Your task to perform on an android device: open app "PlayWell" Image 0: 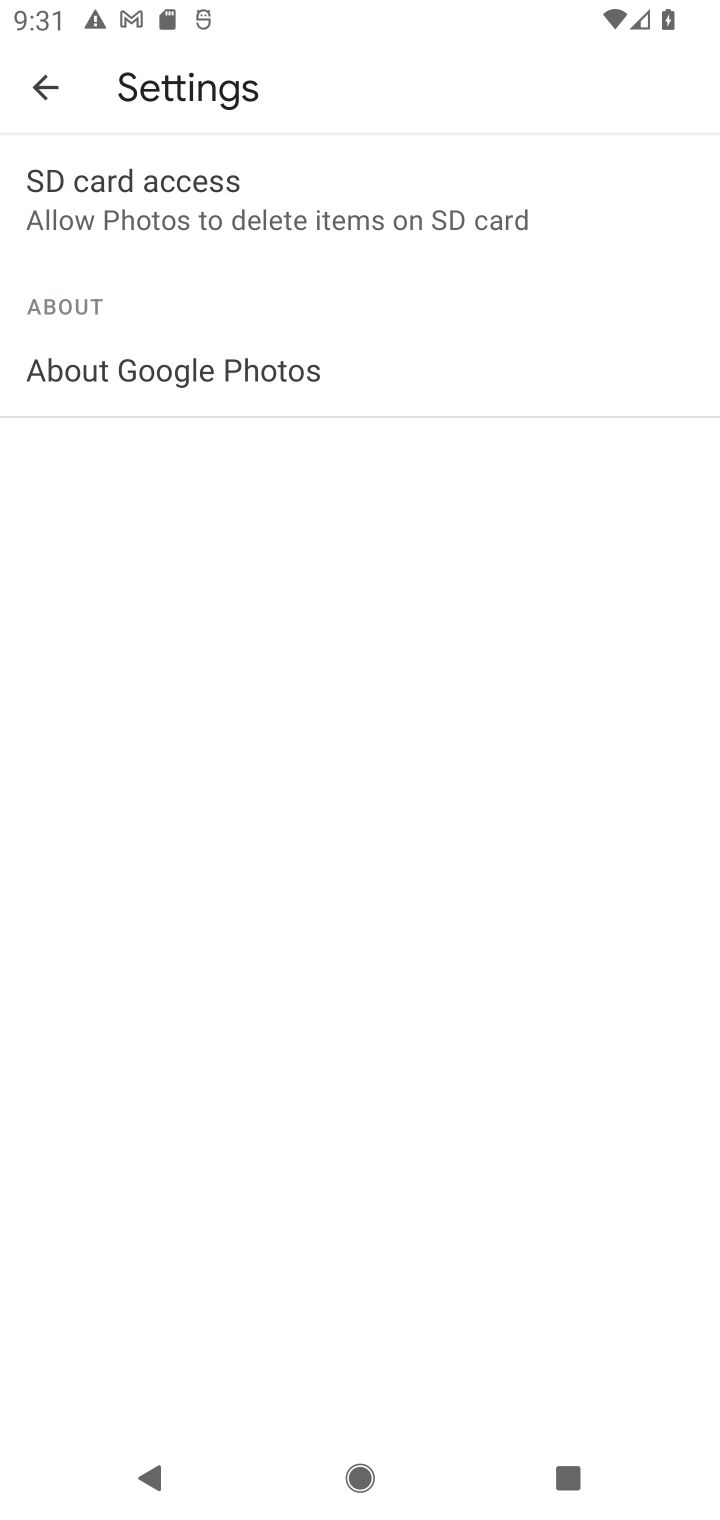
Step 0: press home button
Your task to perform on an android device: open app "PlayWell" Image 1: 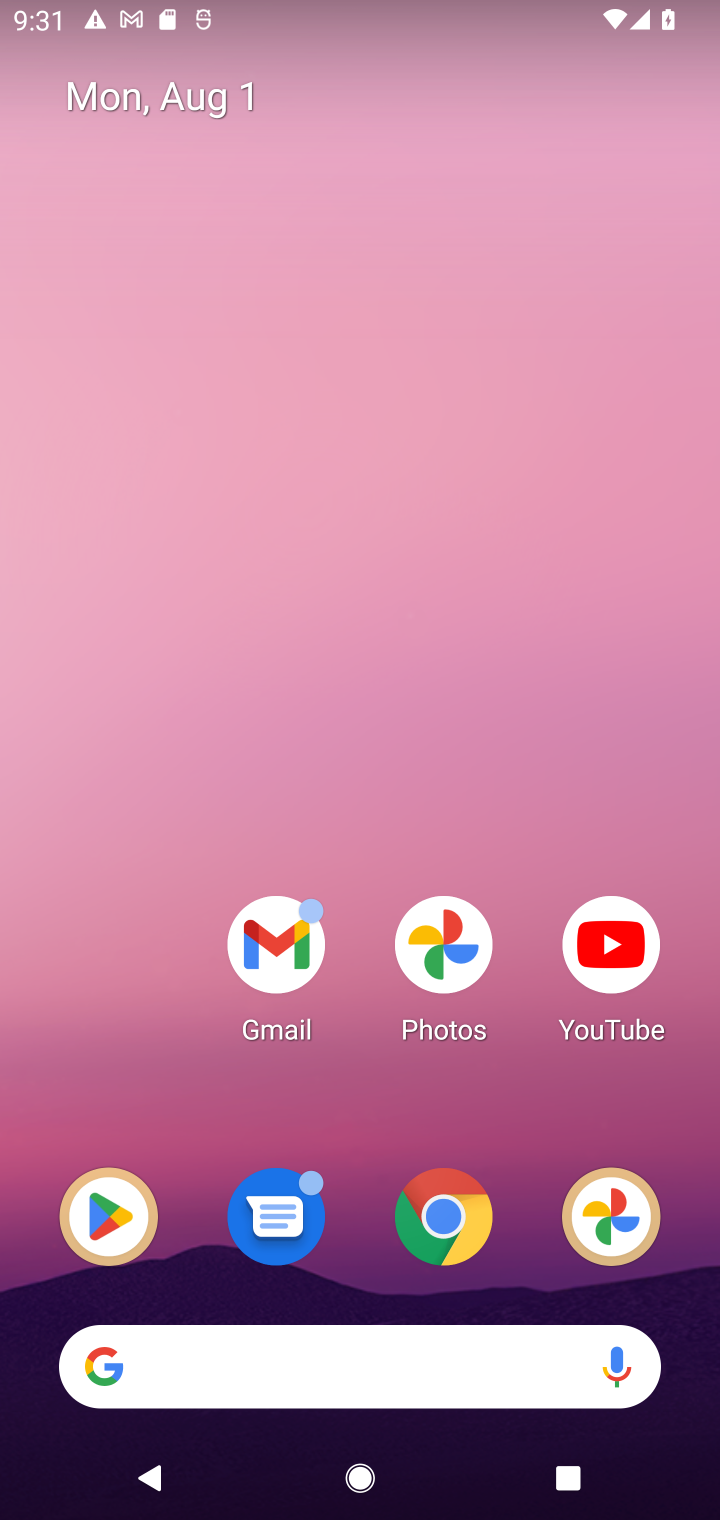
Step 1: click (74, 1238)
Your task to perform on an android device: open app "PlayWell" Image 2: 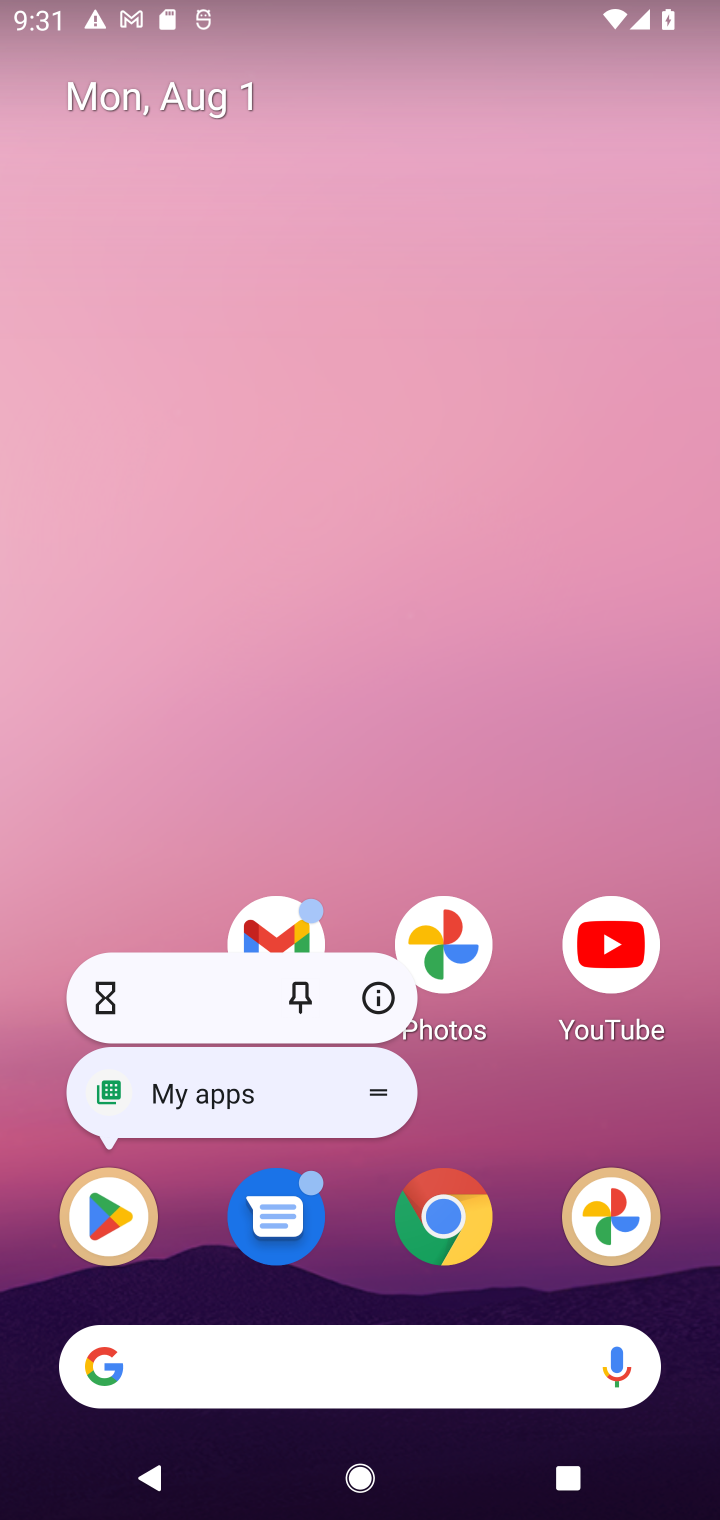
Step 2: click (91, 1228)
Your task to perform on an android device: open app "PlayWell" Image 3: 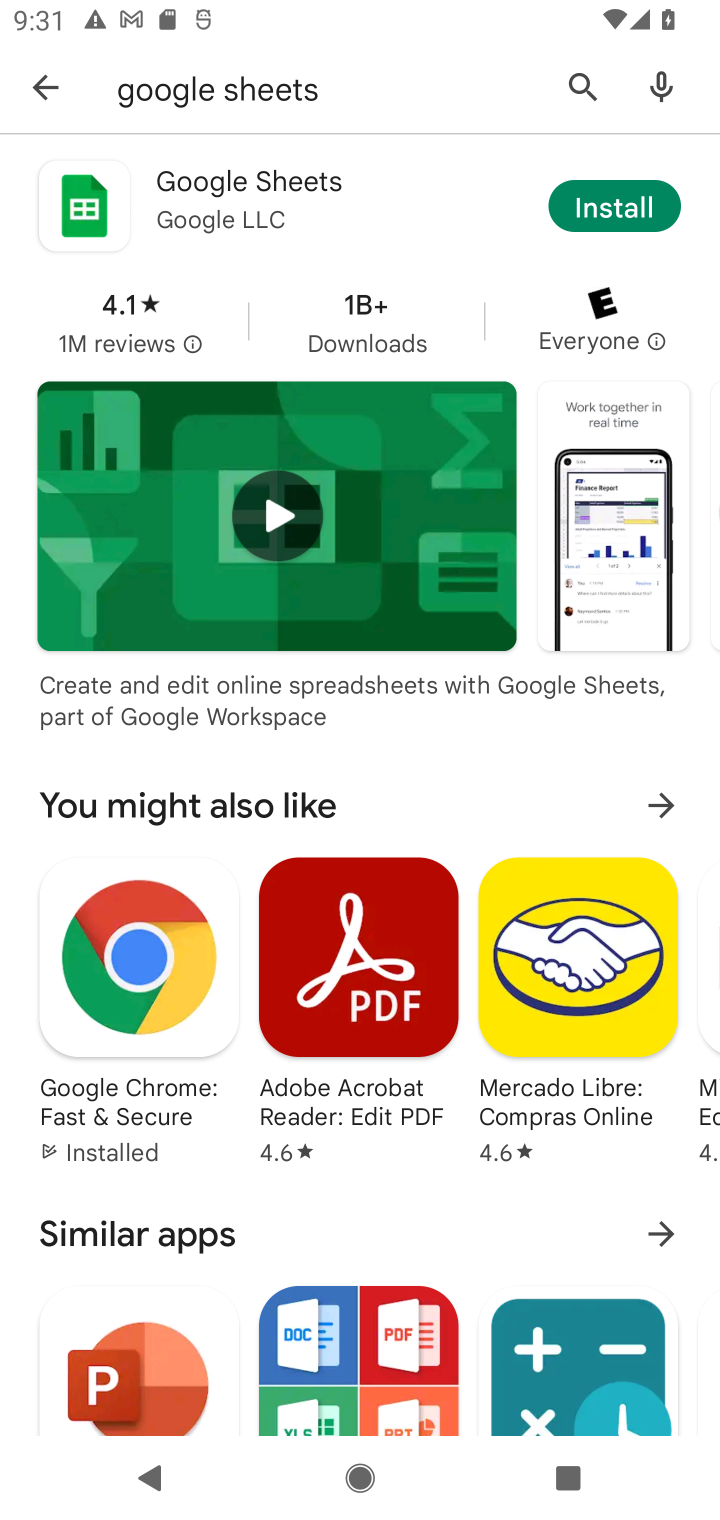
Step 3: click (606, 80)
Your task to perform on an android device: open app "PlayWell" Image 4: 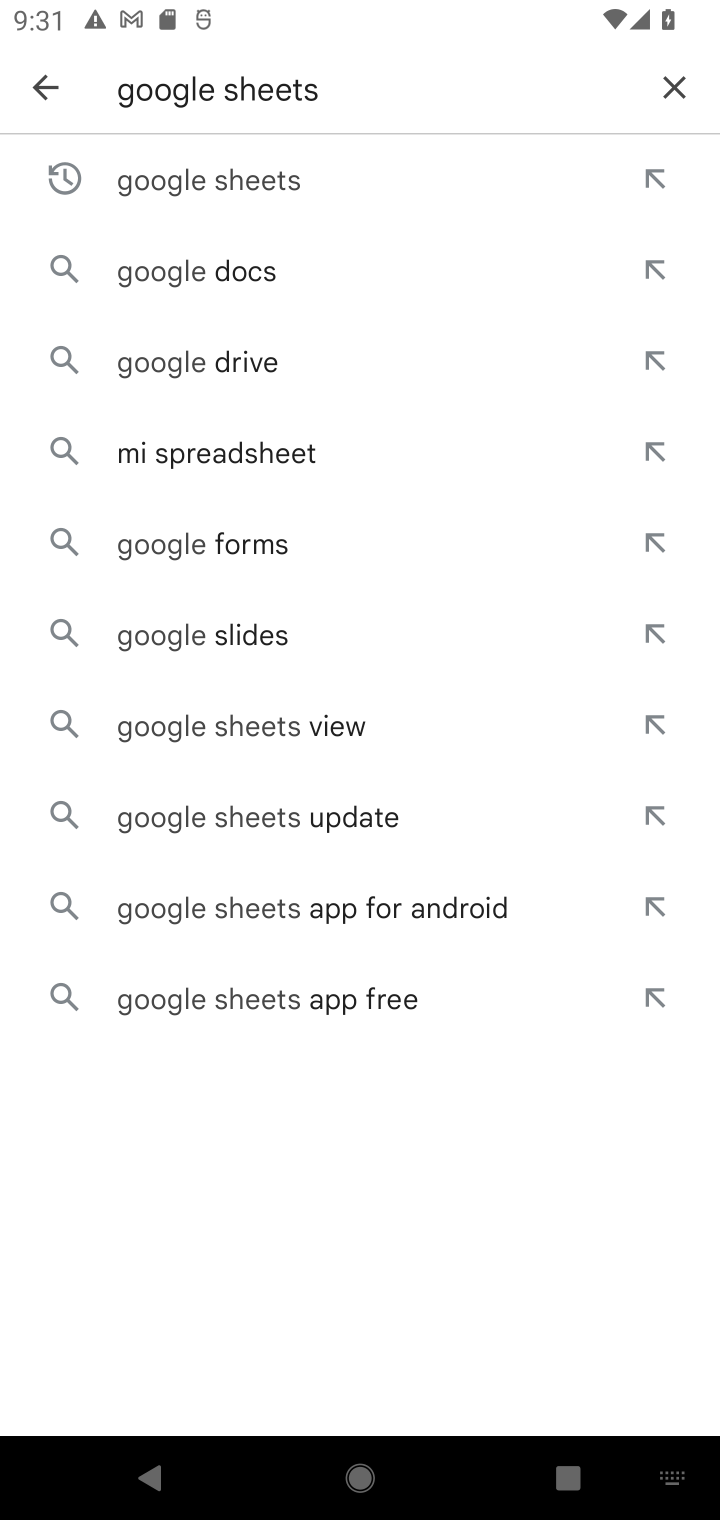
Step 4: click (652, 79)
Your task to perform on an android device: open app "PlayWell" Image 5: 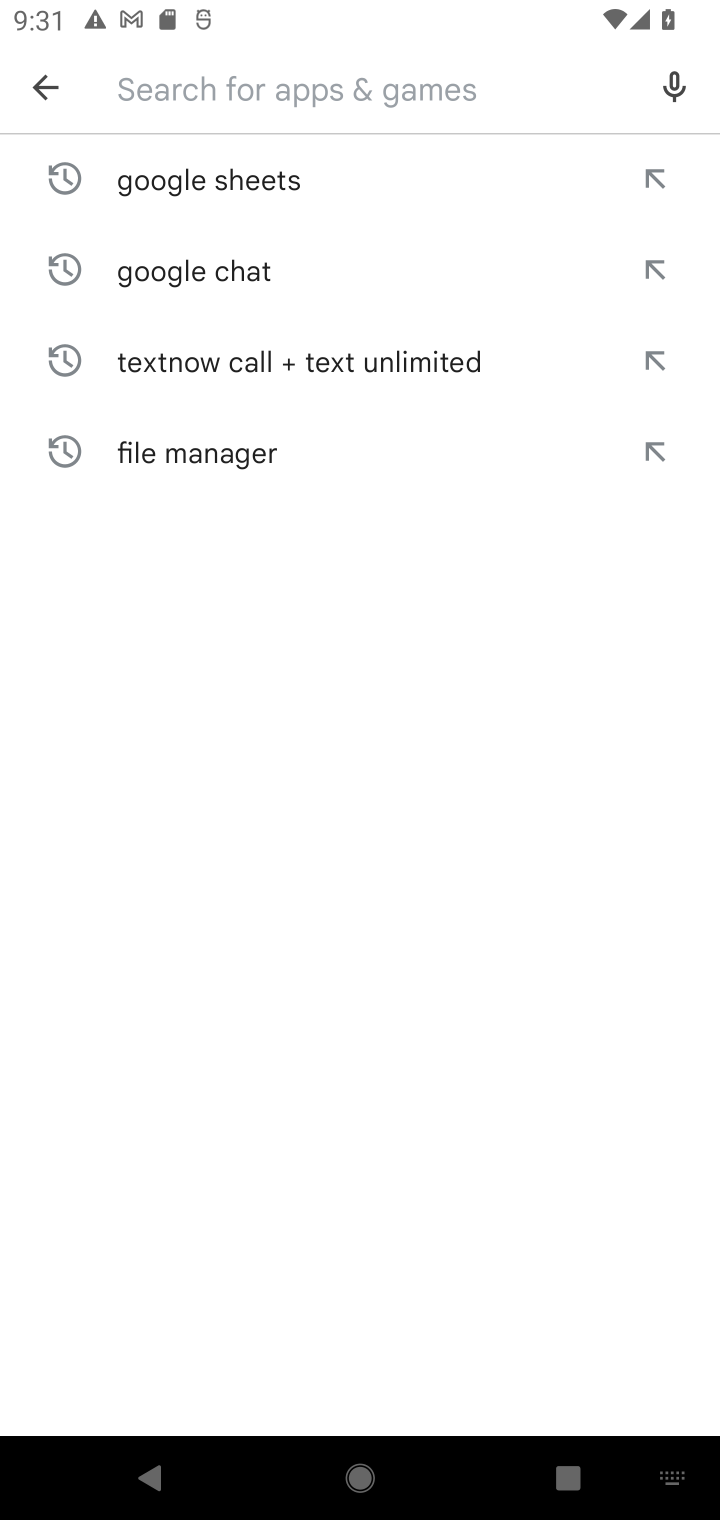
Step 5: type "PlayWell"
Your task to perform on an android device: open app "PlayWell" Image 6: 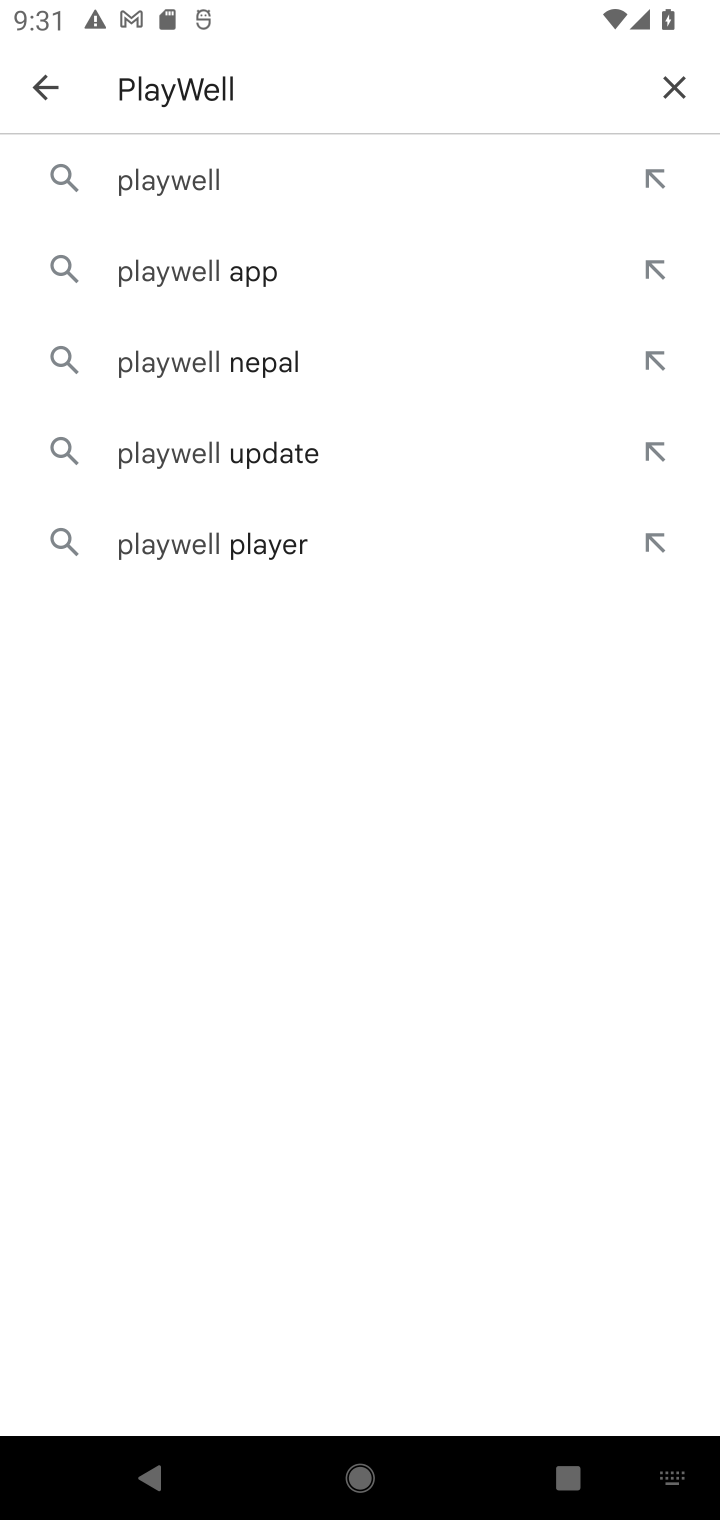
Step 6: click (172, 206)
Your task to perform on an android device: open app "PlayWell" Image 7: 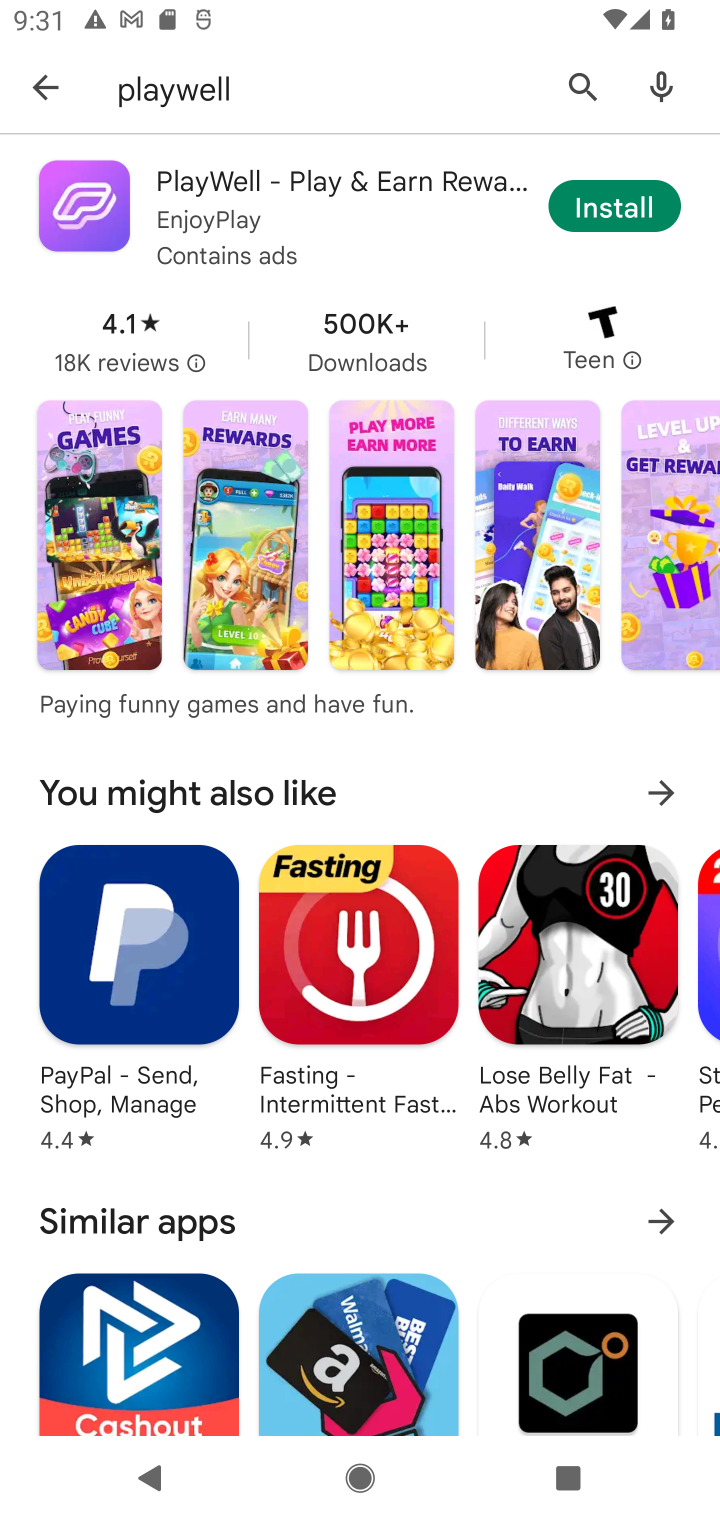
Step 7: task complete